Your task to perform on an android device: Go to notification settings Image 0: 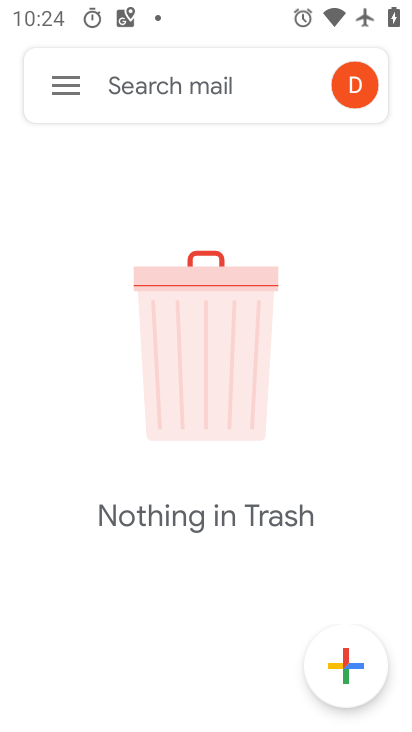
Step 0: click (49, 69)
Your task to perform on an android device: Go to notification settings Image 1: 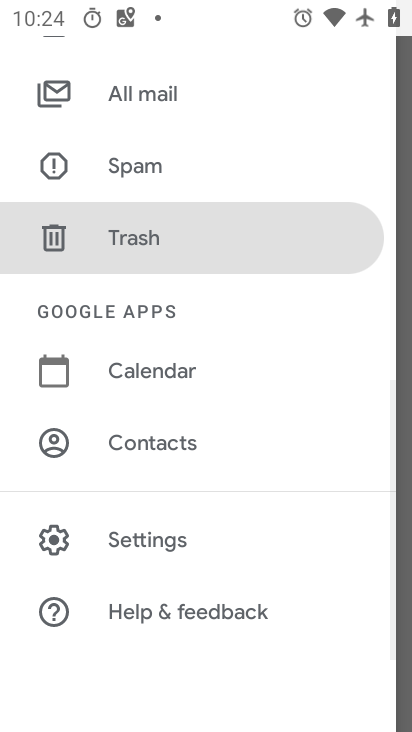
Step 1: press home button
Your task to perform on an android device: Go to notification settings Image 2: 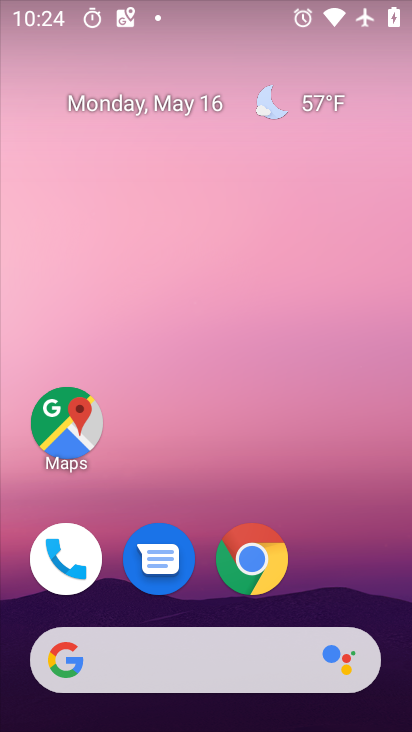
Step 2: drag from (274, 499) to (318, 53)
Your task to perform on an android device: Go to notification settings Image 3: 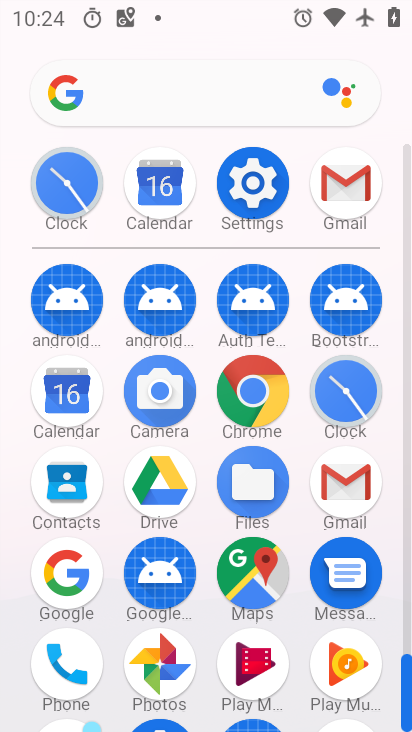
Step 3: click (270, 167)
Your task to perform on an android device: Go to notification settings Image 4: 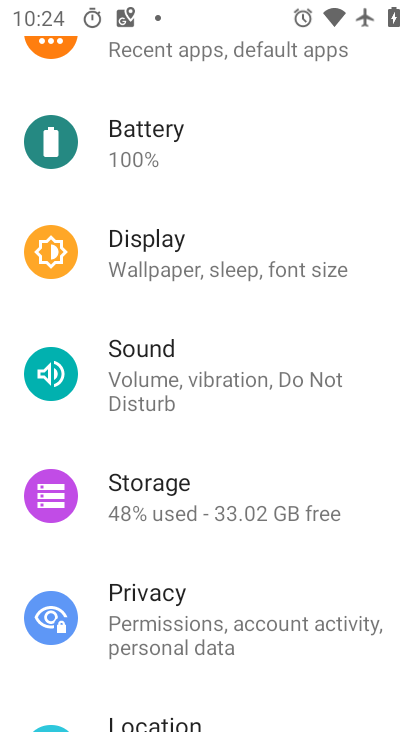
Step 4: drag from (260, 623) to (245, 728)
Your task to perform on an android device: Go to notification settings Image 5: 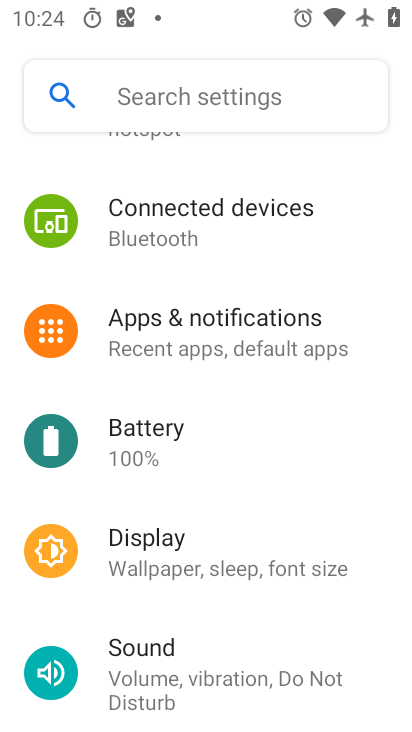
Step 5: click (225, 355)
Your task to perform on an android device: Go to notification settings Image 6: 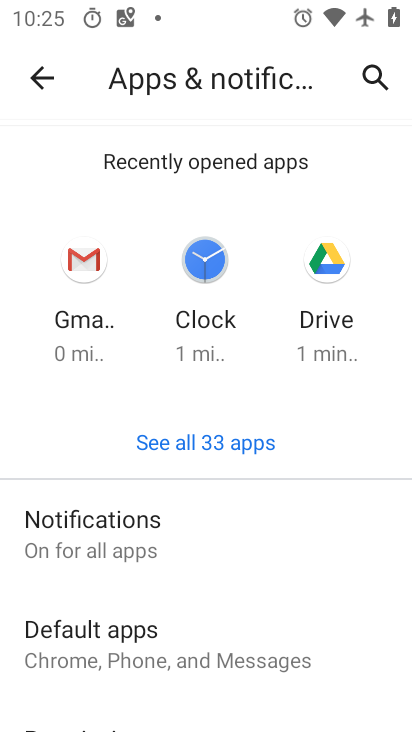
Step 6: drag from (174, 583) to (266, 334)
Your task to perform on an android device: Go to notification settings Image 7: 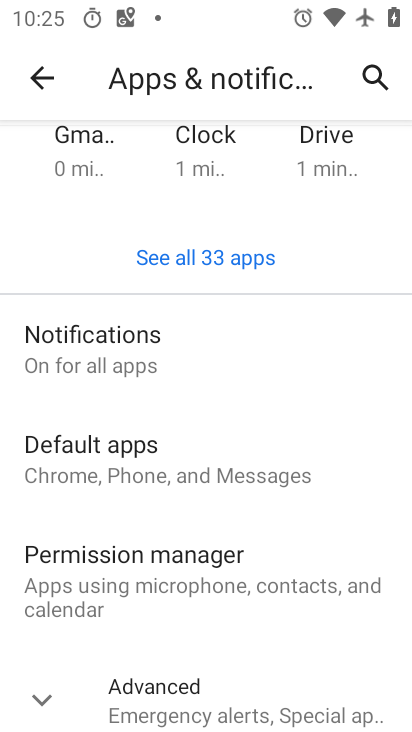
Step 7: click (129, 355)
Your task to perform on an android device: Go to notification settings Image 8: 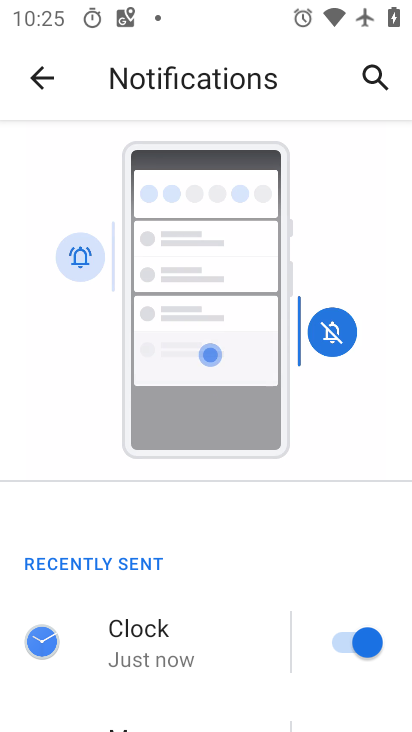
Step 8: task complete